Your task to perform on an android device: check battery use Image 0: 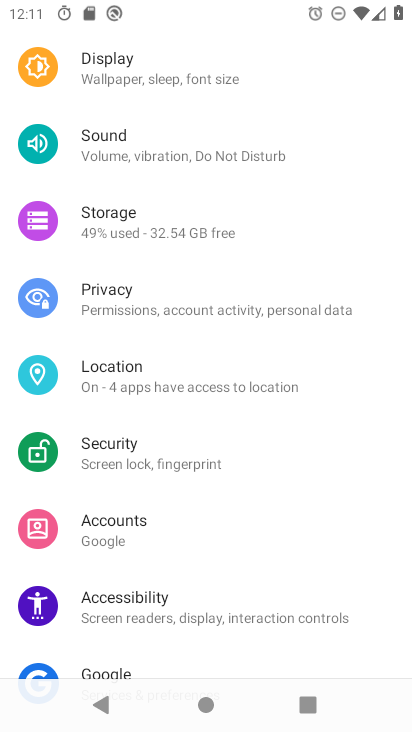
Step 0: press home button
Your task to perform on an android device: check battery use Image 1: 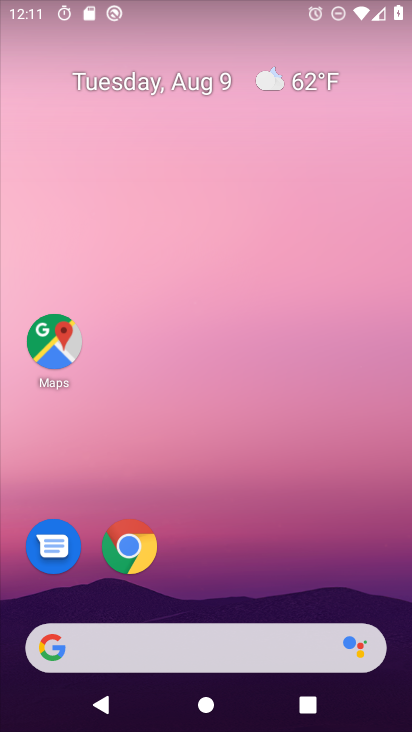
Step 1: drag from (228, 588) to (255, 109)
Your task to perform on an android device: check battery use Image 2: 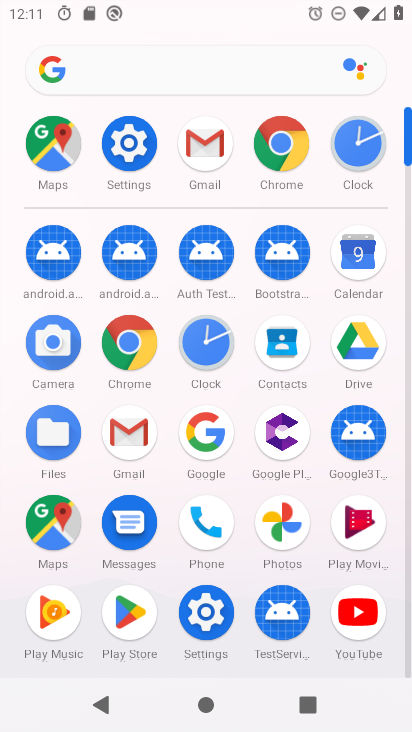
Step 2: click (123, 138)
Your task to perform on an android device: check battery use Image 3: 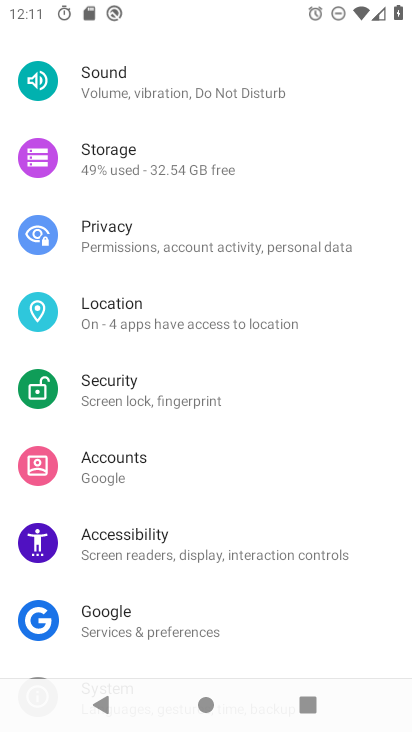
Step 3: drag from (162, 142) to (179, 639)
Your task to perform on an android device: check battery use Image 4: 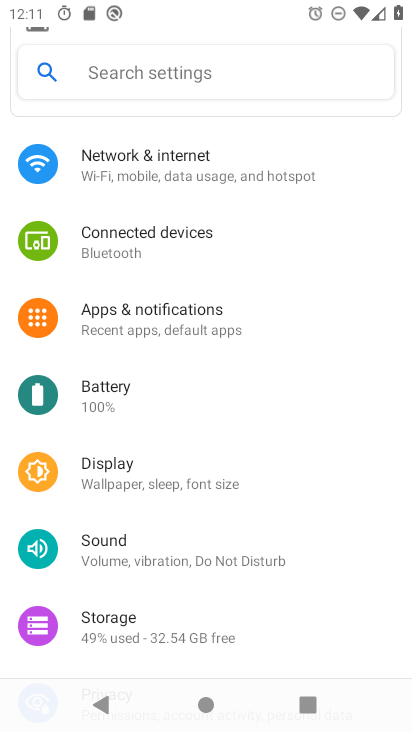
Step 4: click (142, 388)
Your task to perform on an android device: check battery use Image 5: 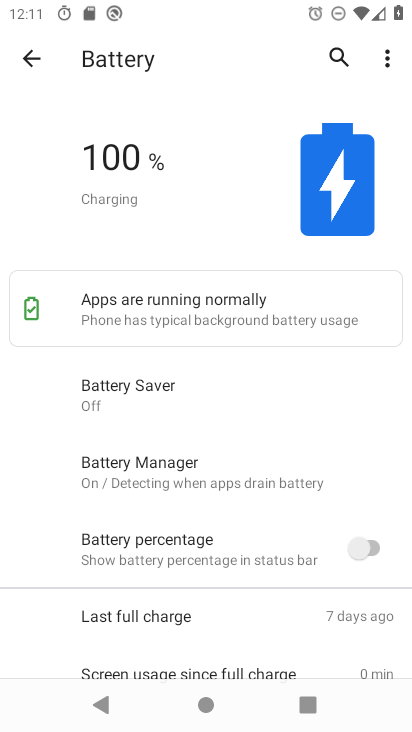
Step 5: click (386, 57)
Your task to perform on an android device: check battery use Image 6: 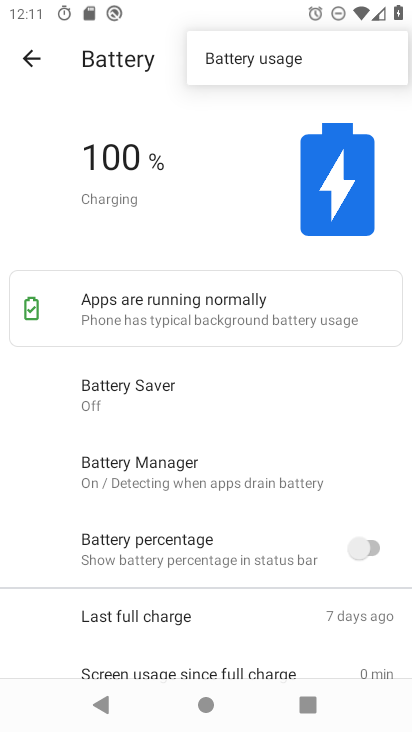
Step 6: click (251, 58)
Your task to perform on an android device: check battery use Image 7: 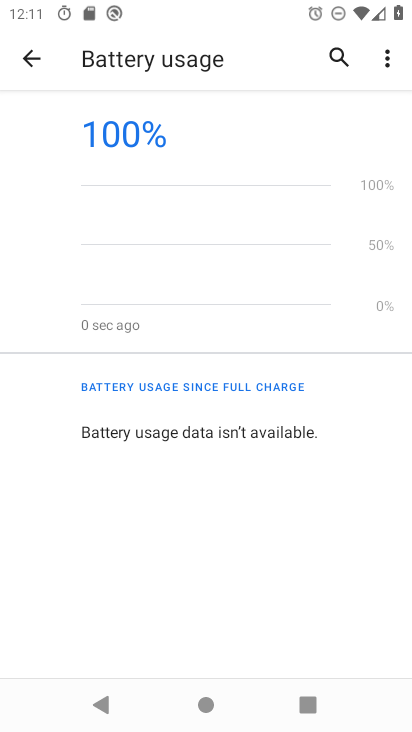
Step 7: task complete